Your task to perform on an android device: set an alarm Image 0: 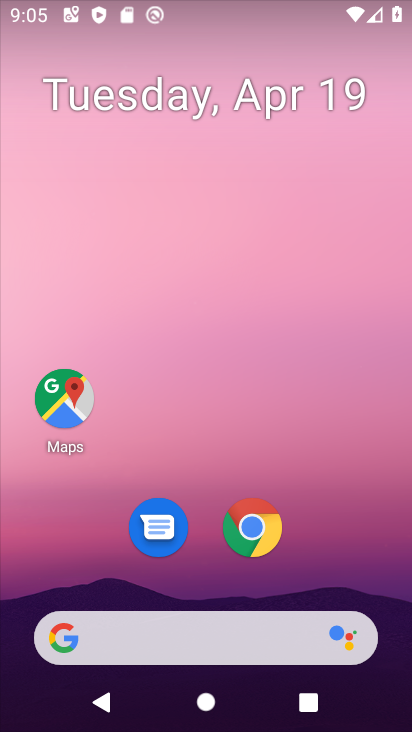
Step 0: drag from (314, 574) to (323, 173)
Your task to perform on an android device: set an alarm Image 1: 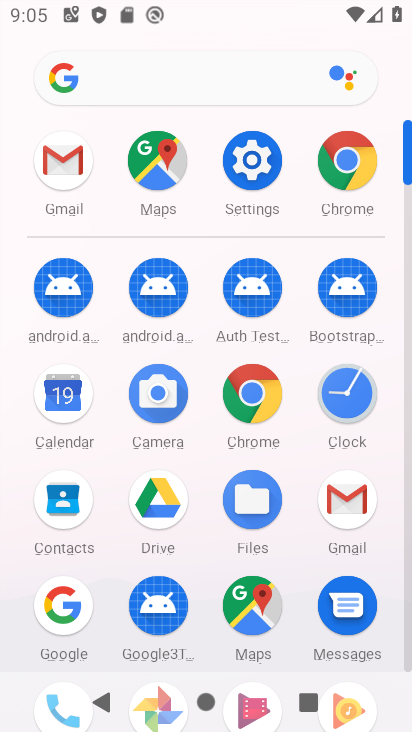
Step 1: click (336, 391)
Your task to perform on an android device: set an alarm Image 2: 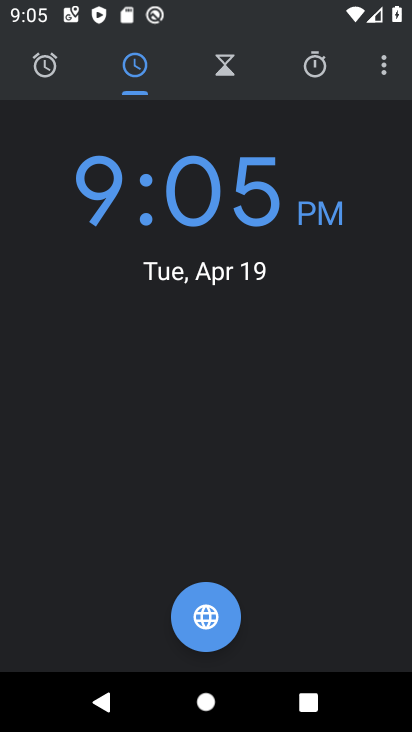
Step 2: click (54, 64)
Your task to perform on an android device: set an alarm Image 3: 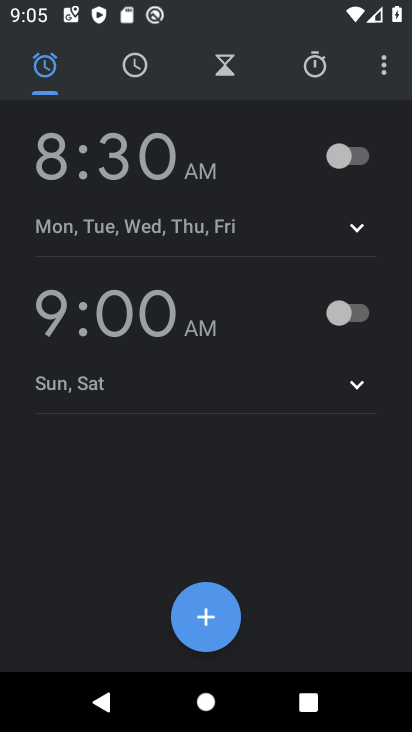
Step 3: click (358, 165)
Your task to perform on an android device: set an alarm Image 4: 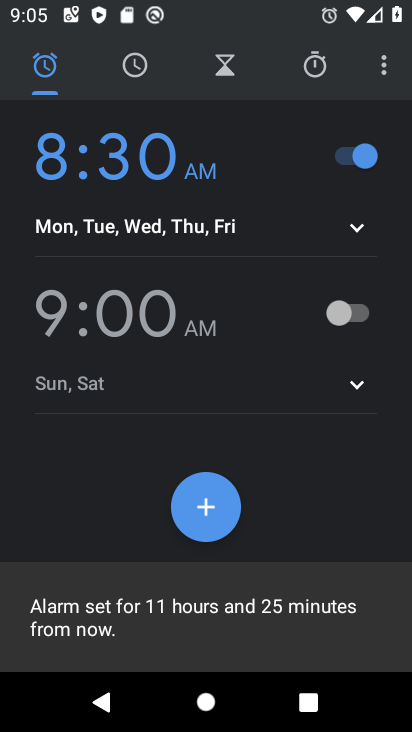
Step 4: click (185, 207)
Your task to perform on an android device: set an alarm Image 5: 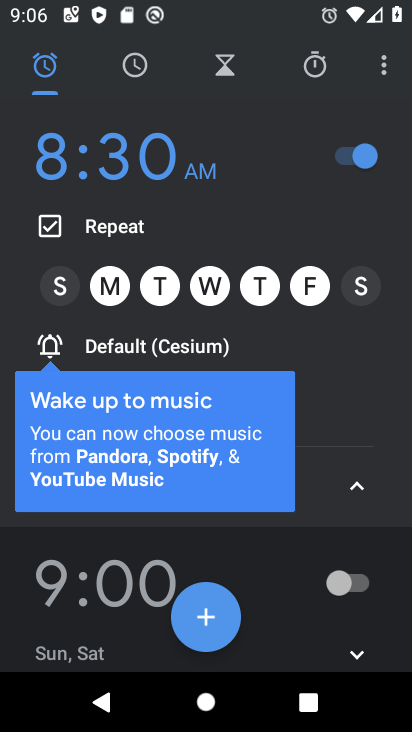
Step 5: click (61, 288)
Your task to perform on an android device: set an alarm Image 6: 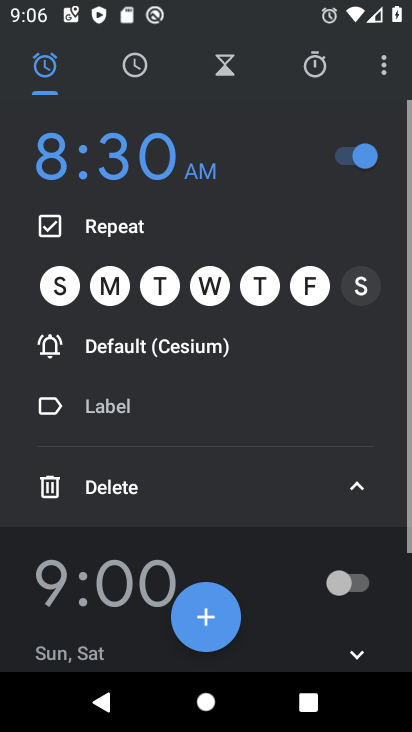
Step 6: click (363, 284)
Your task to perform on an android device: set an alarm Image 7: 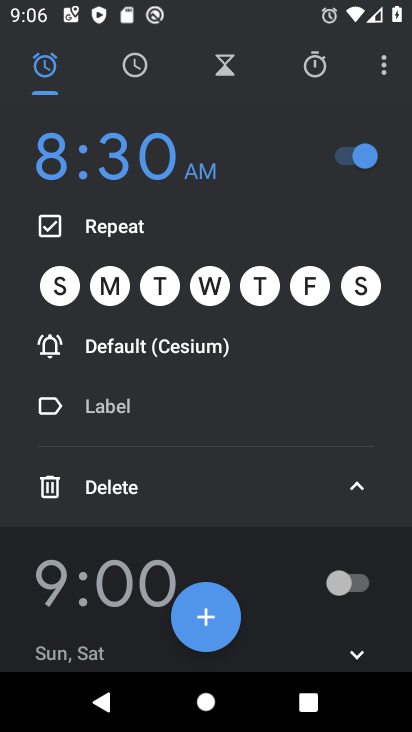
Step 7: click (360, 490)
Your task to perform on an android device: set an alarm Image 8: 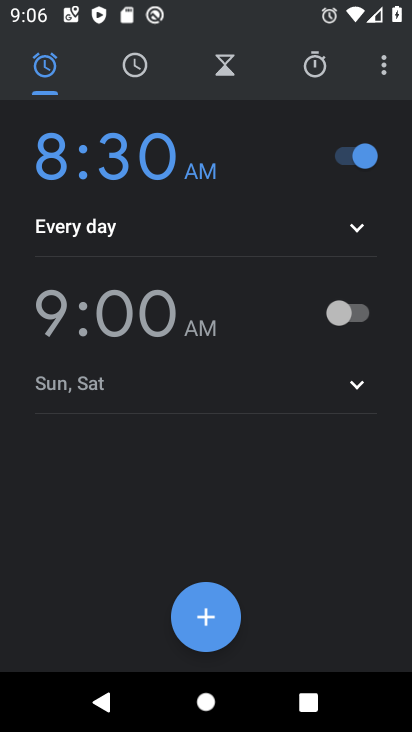
Step 8: task complete